Your task to perform on an android device: turn on translation in the chrome app Image 0: 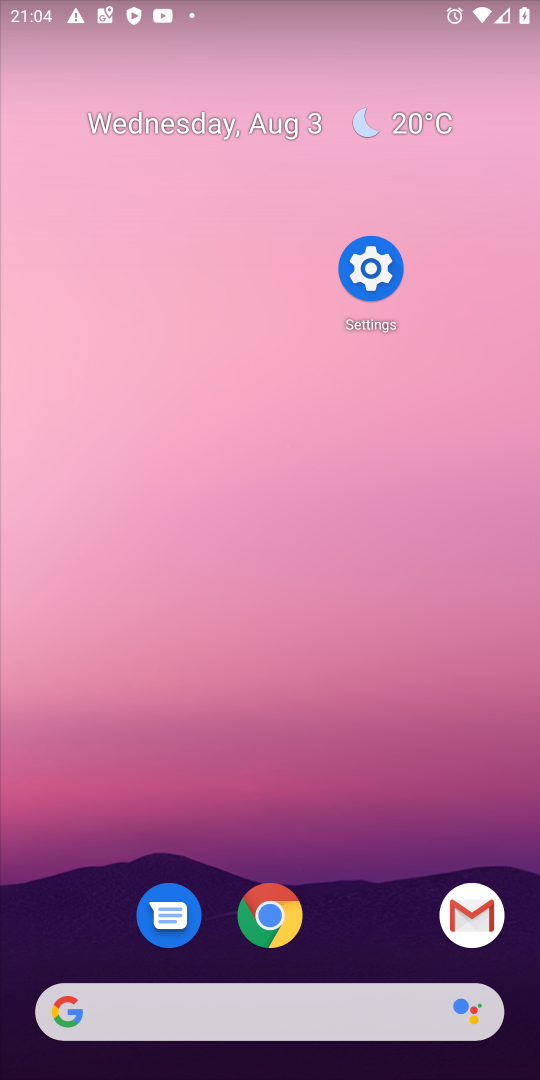
Step 0: press home button
Your task to perform on an android device: turn on translation in the chrome app Image 1: 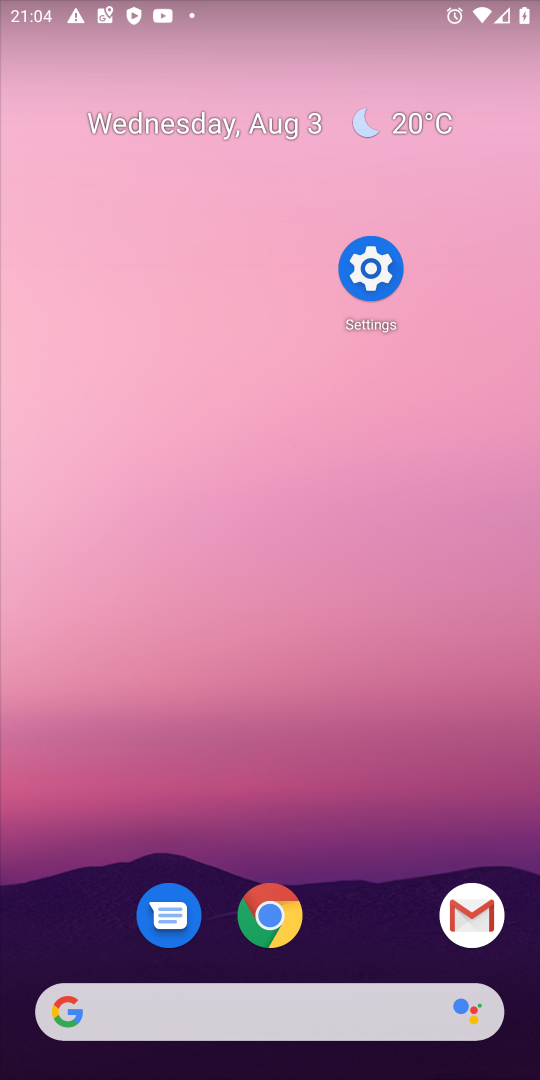
Step 1: drag from (336, 1056) to (354, 332)
Your task to perform on an android device: turn on translation in the chrome app Image 2: 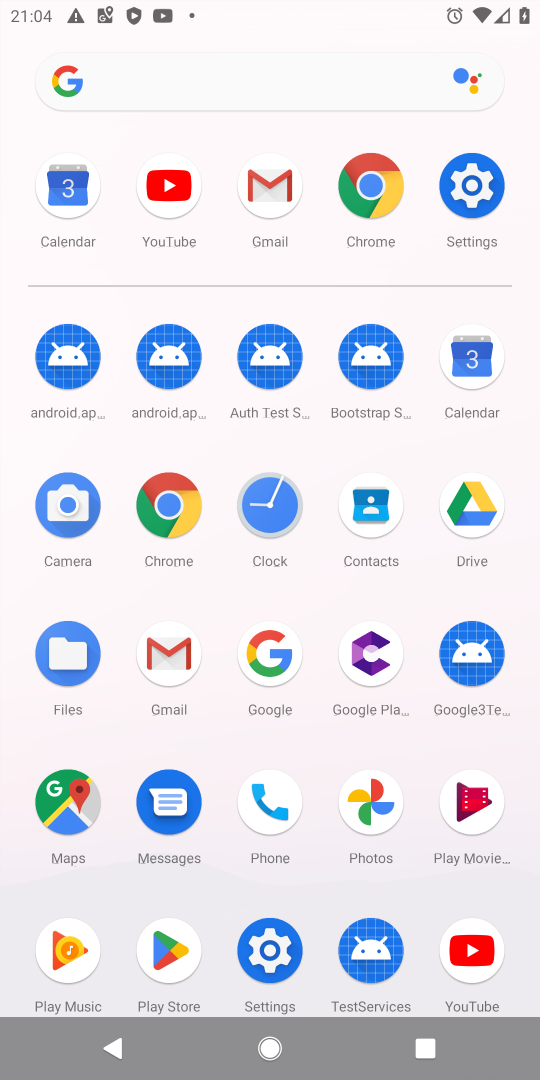
Step 2: click (340, 166)
Your task to perform on an android device: turn on translation in the chrome app Image 3: 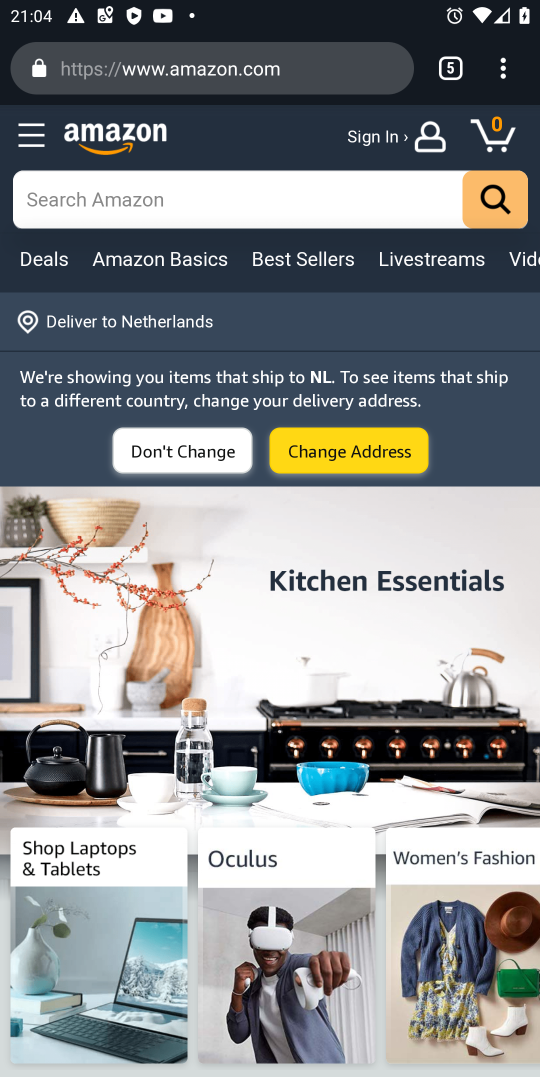
Step 3: click (502, 66)
Your task to perform on an android device: turn on translation in the chrome app Image 4: 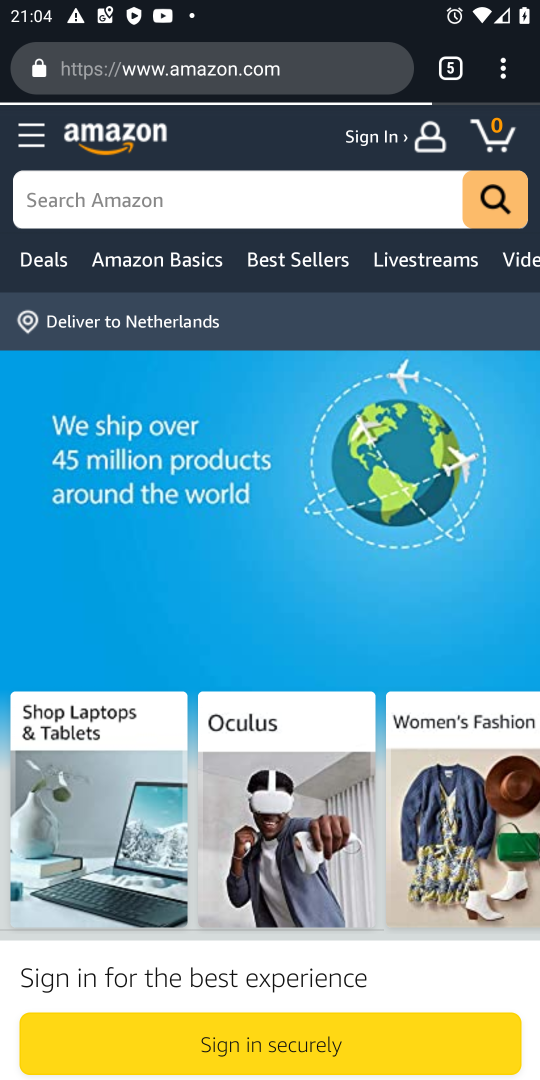
Step 4: click (502, 79)
Your task to perform on an android device: turn on translation in the chrome app Image 5: 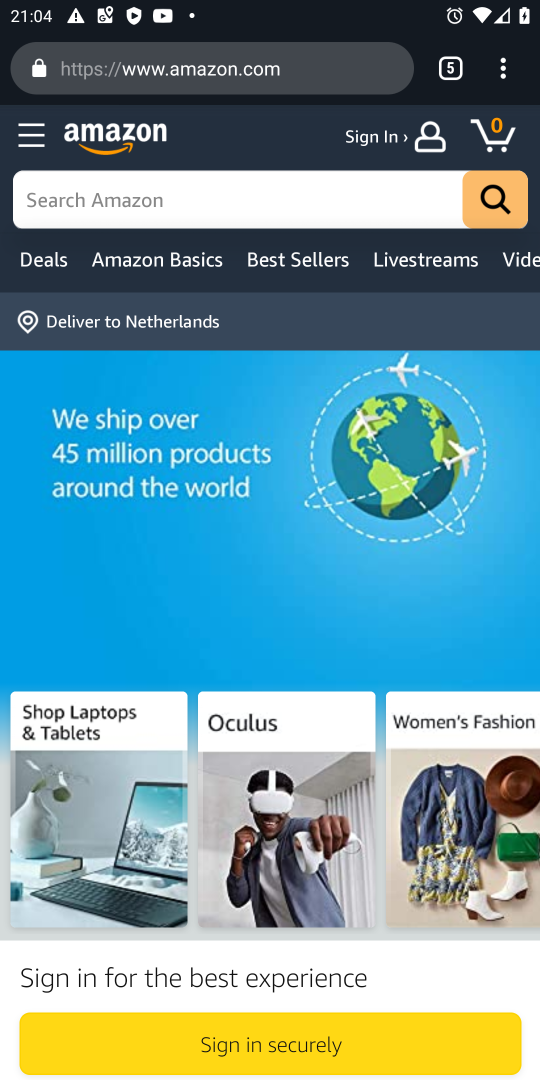
Step 5: click (512, 86)
Your task to perform on an android device: turn on translation in the chrome app Image 6: 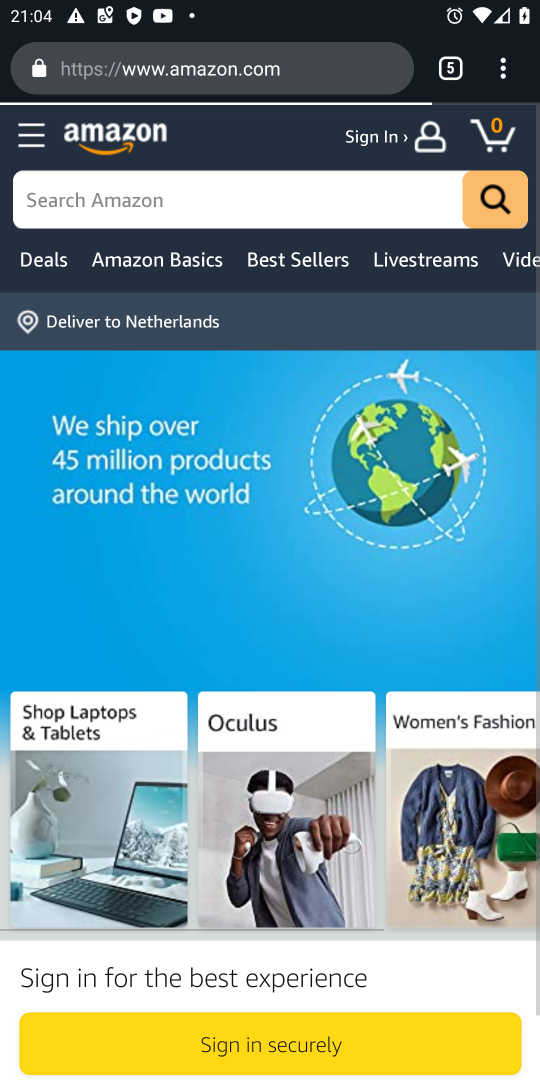
Step 6: click (498, 73)
Your task to perform on an android device: turn on translation in the chrome app Image 7: 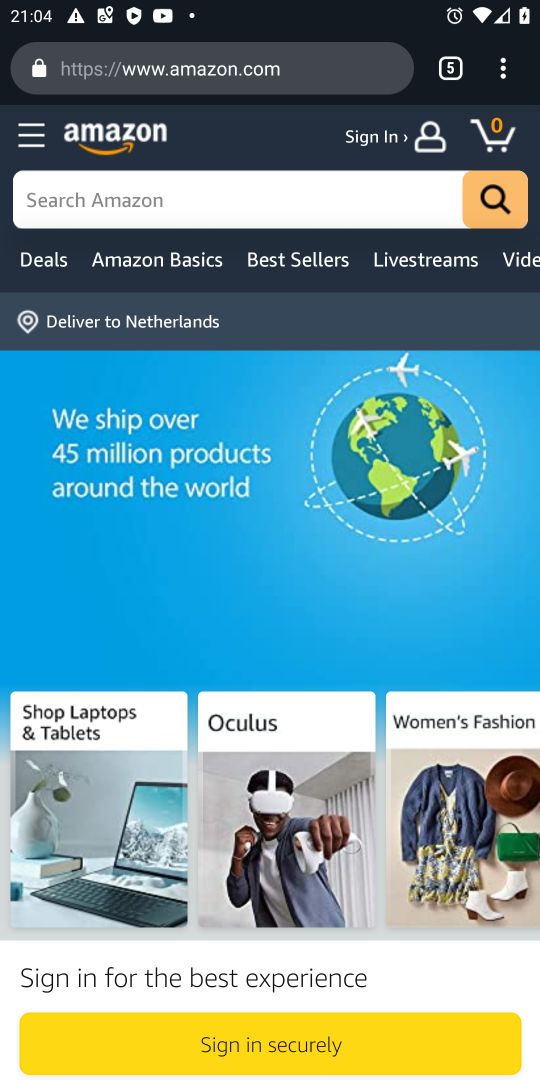
Step 7: click (507, 76)
Your task to perform on an android device: turn on translation in the chrome app Image 8: 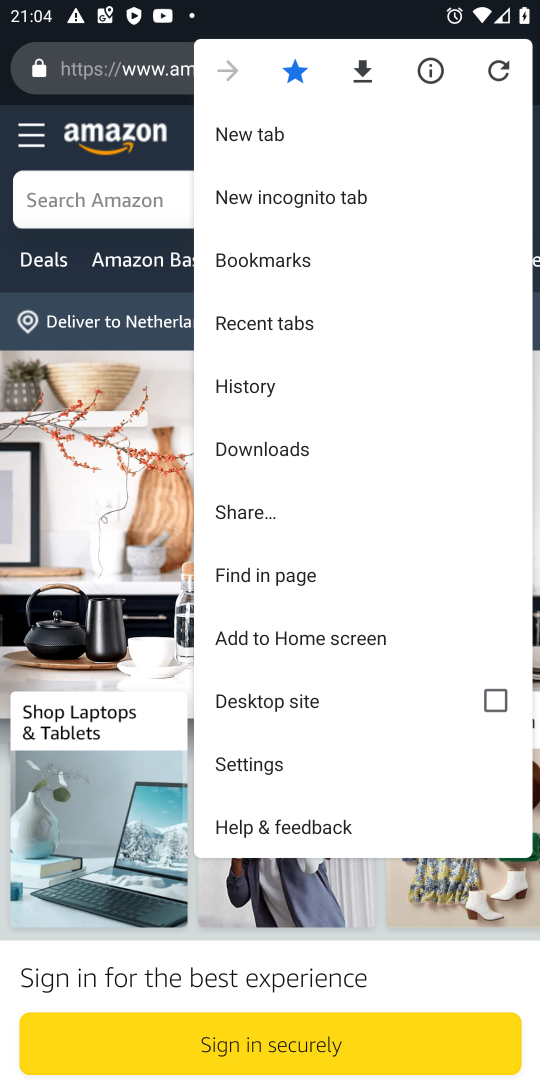
Step 8: click (292, 759)
Your task to perform on an android device: turn on translation in the chrome app Image 9: 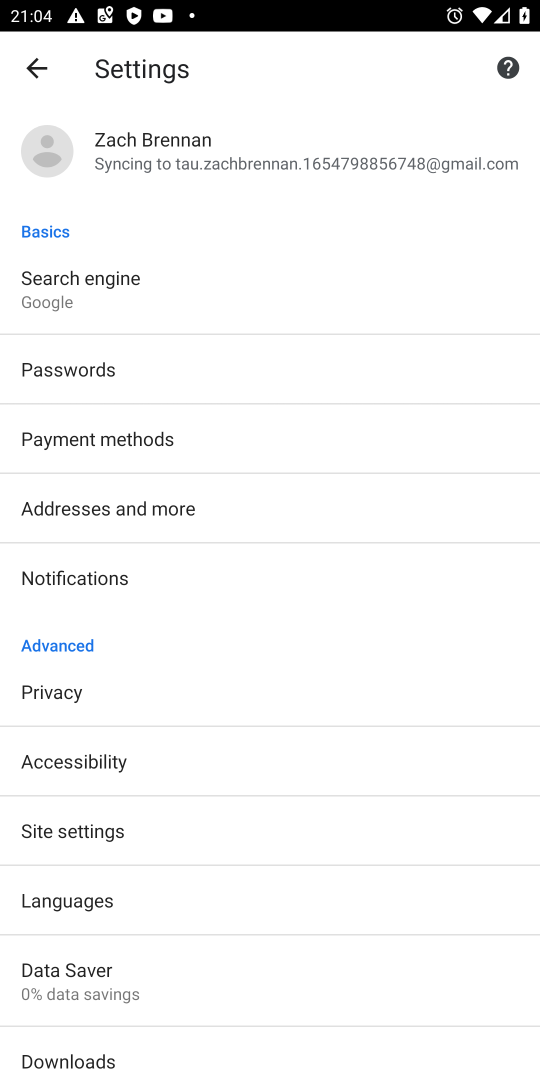
Step 9: click (175, 899)
Your task to perform on an android device: turn on translation in the chrome app Image 10: 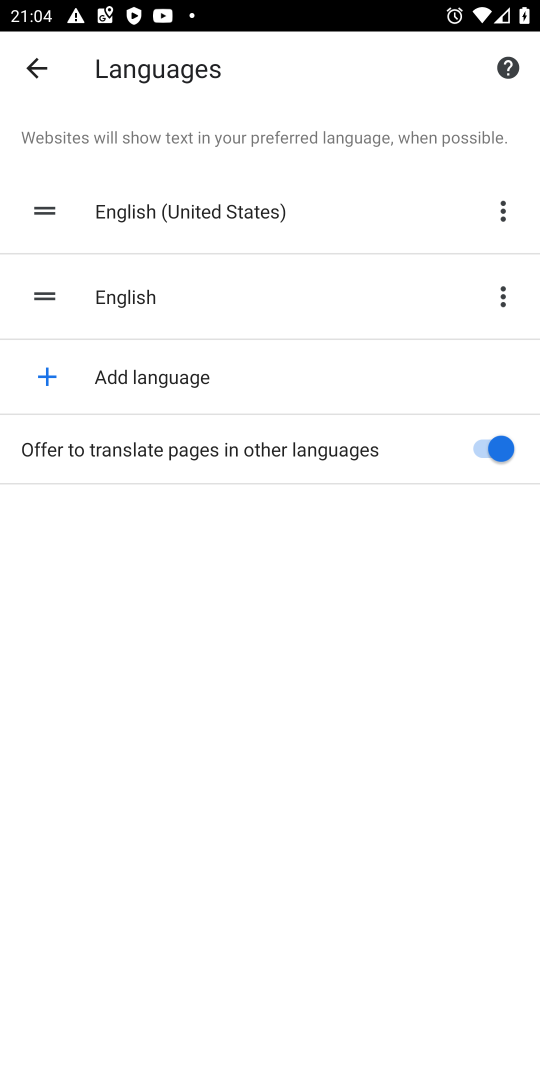
Step 10: click (389, 443)
Your task to perform on an android device: turn on translation in the chrome app Image 11: 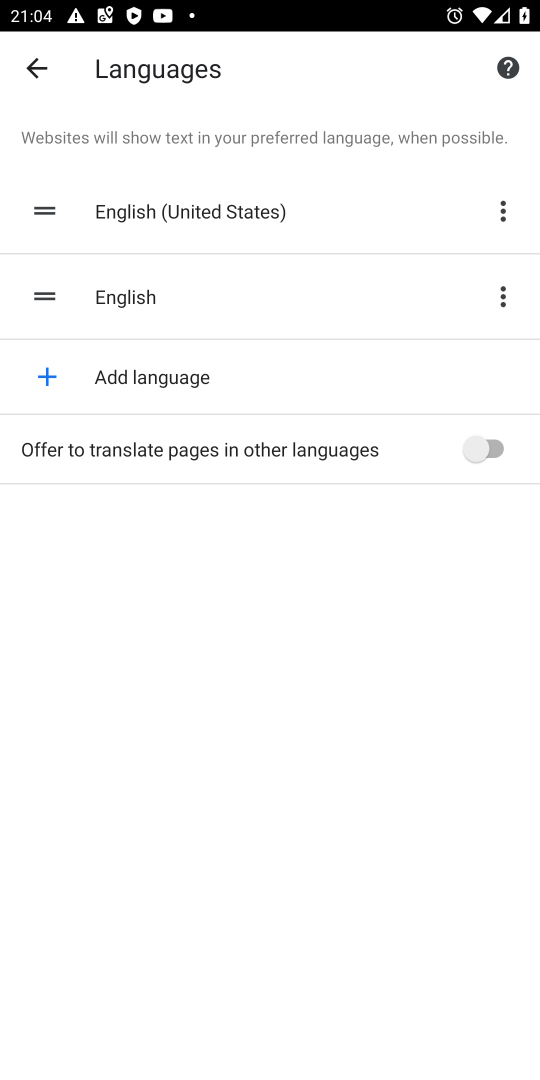
Step 11: click (389, 443)
Your task to perform on an android device: turn on translation in the chrome app Image 12: 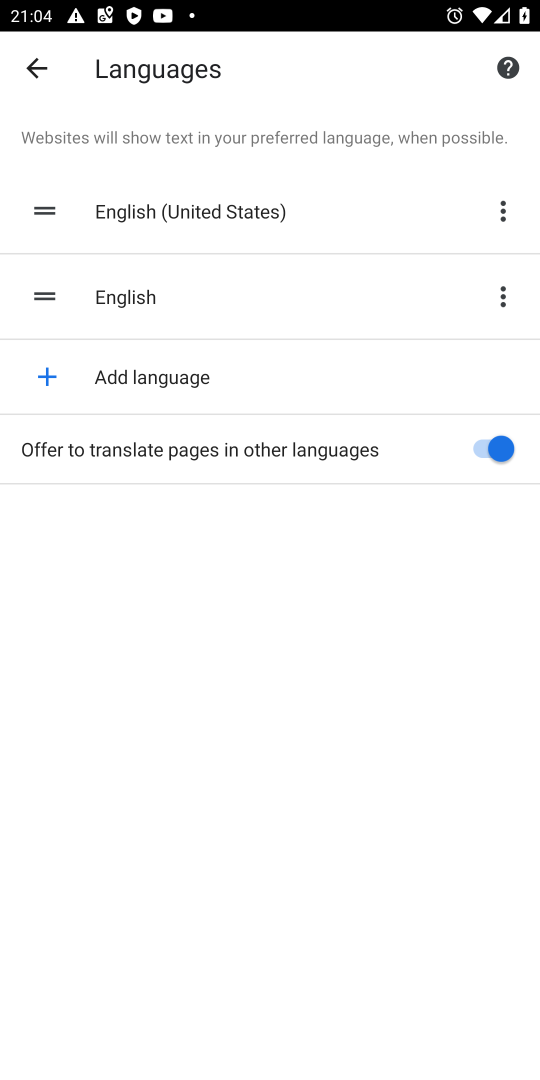
Step 12: task complete